Your task to perform on an android device: Open Reddit.com Image 0: 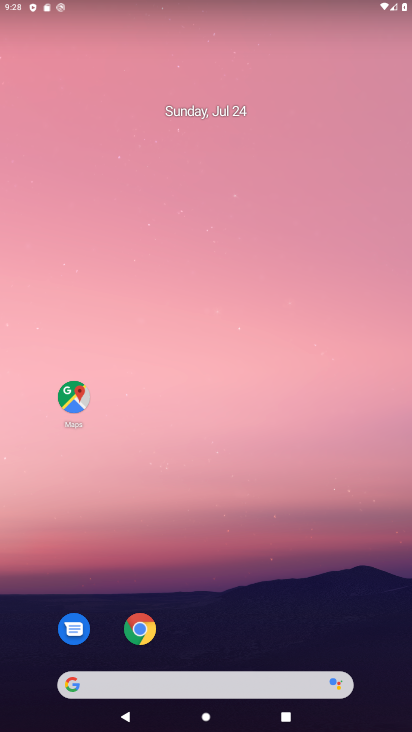
Step 0: click (136, 630)
Your task to perform on an android device: Open Reddit.com Image 1: 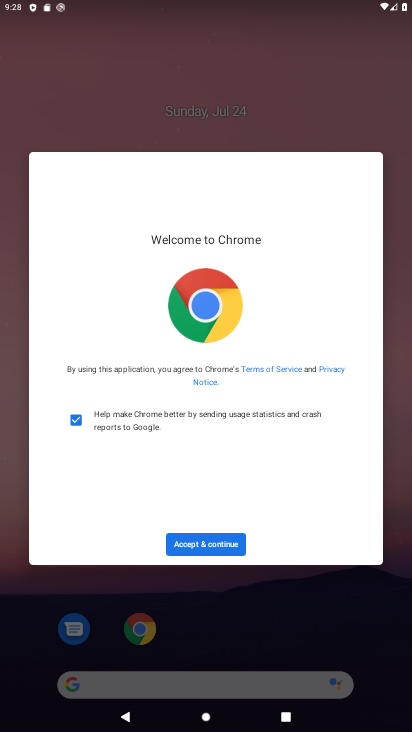
Step 1: click (197, 548)
Your task to perform on an android device: Open Reddit.com Image 2: 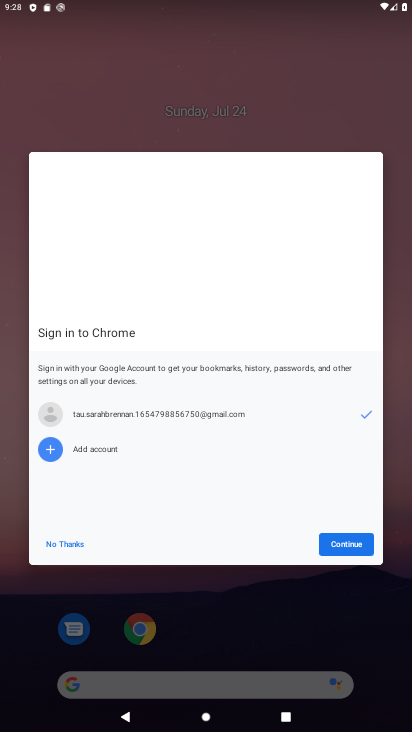
Step 2: click (349, 544)
Your task to perform on an android device: Open Reddit.com Image 3: 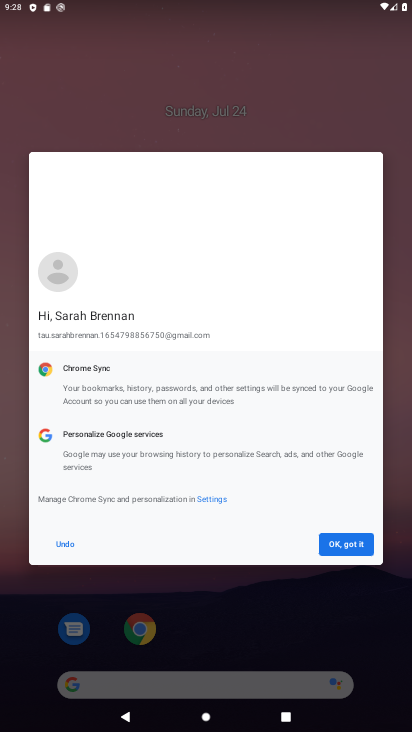
Step 3: click (349, 544)
Your task to perform on an android device: Open Reddit.com Image 4: 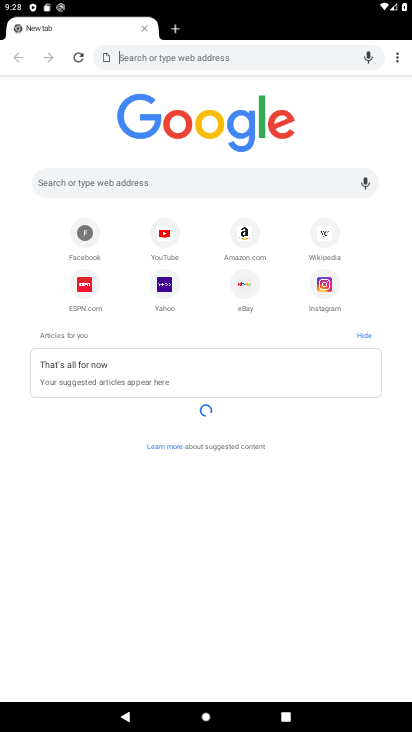
Step 4: click (280, 179)
Your task to perform on an android device: Open Reddit.com Image 5: 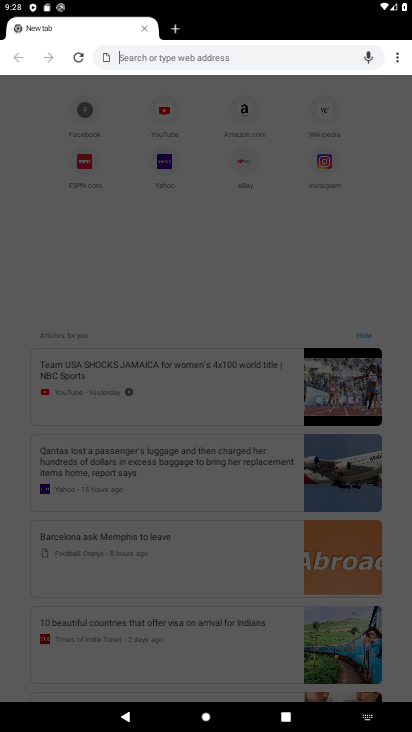
Step 5: type "Reddit.com"
Your task to perform on an android device: Open Reddit.com Image 6: 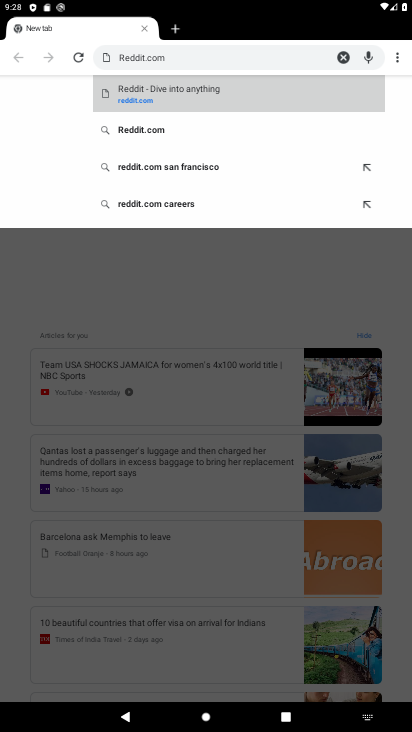
Step 6: click (149, 130)
Your task to perform on an android device: Open Reddit.com Image 7: 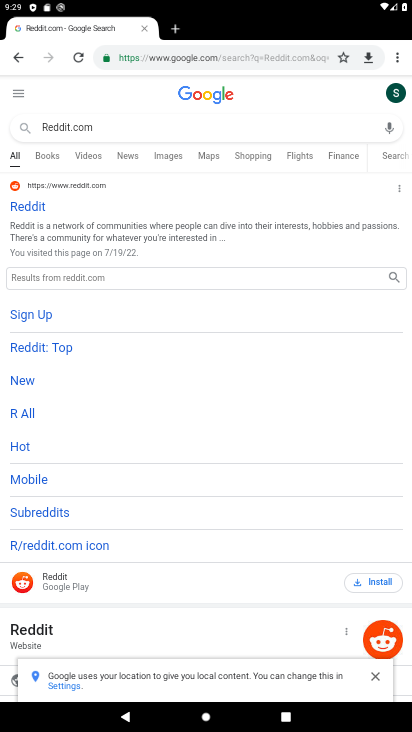
Step 7: click (35, 214)
Your task to perform on an android device: Open Reddit.com Image 8: 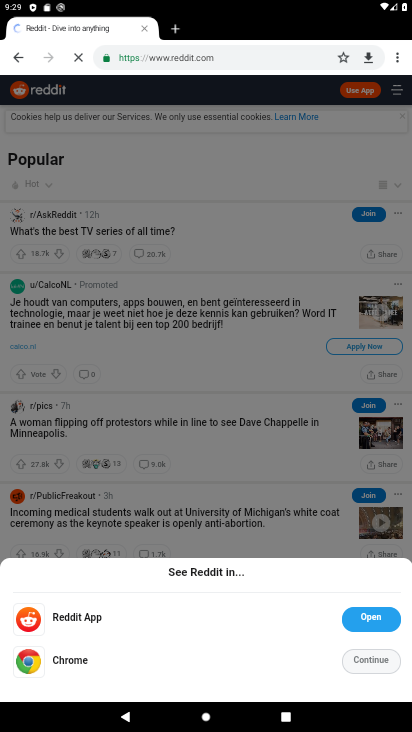
Step 8: click (366, 664)
Your task to perform on an android device: Open Reddit.com Image 9: 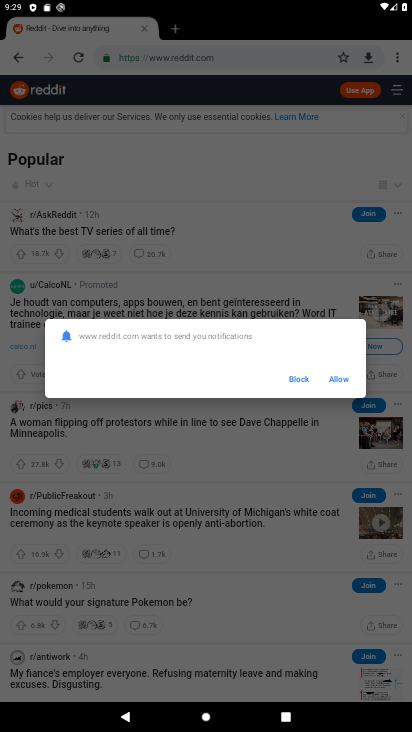
Step 9: click (344, 380)
Your task to perform on an android device: Open Reddit.com Image 10: 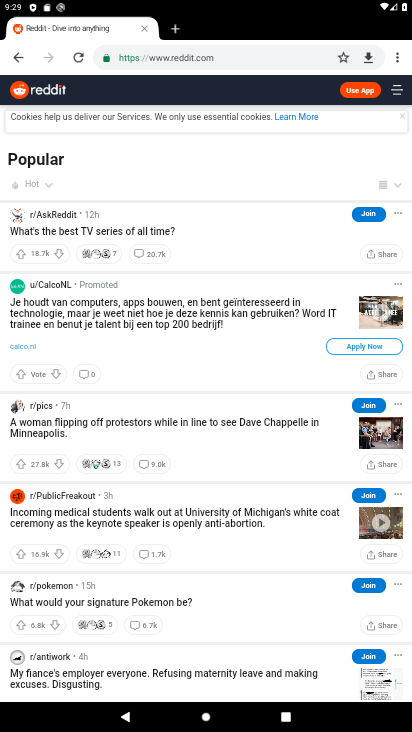
Step 10: task complete